Your task to perform on an android device: install app "Truecaller" Image 0: 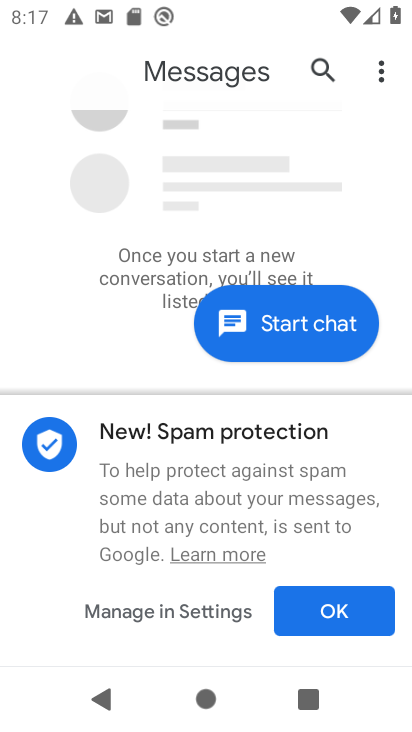
Step 0: press home button
Your task to perform on an android device: install app "Truecaller" Image 1: 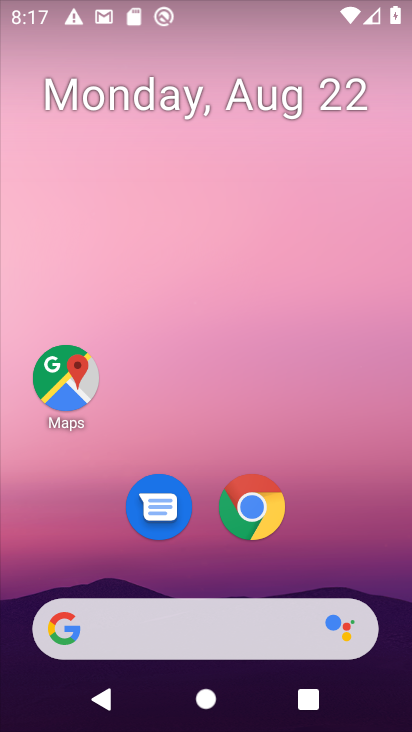
Step 1: drag from (179, 338) to (190, 186)
Your task to perform on an android device: install app "Truecaller" Image 2: 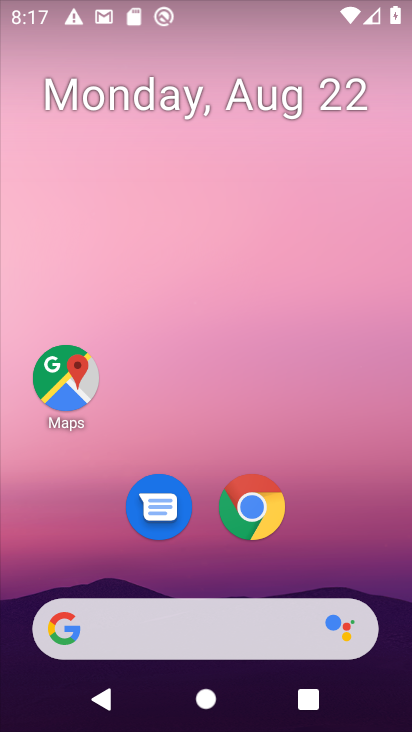
Step 2: drag from (194, 516) to (183, 9)
Your task to perform on an android device: install app "Truecaller" Image 3: 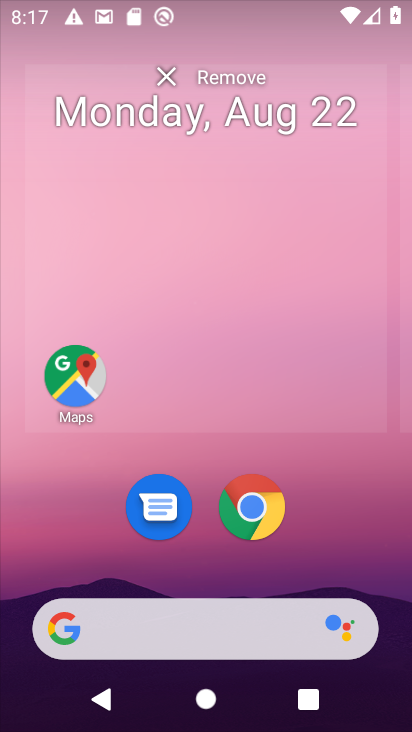
Step 3: click (311, 519)
Your task to perform on an android device: install app "Truecaller" Image 4: 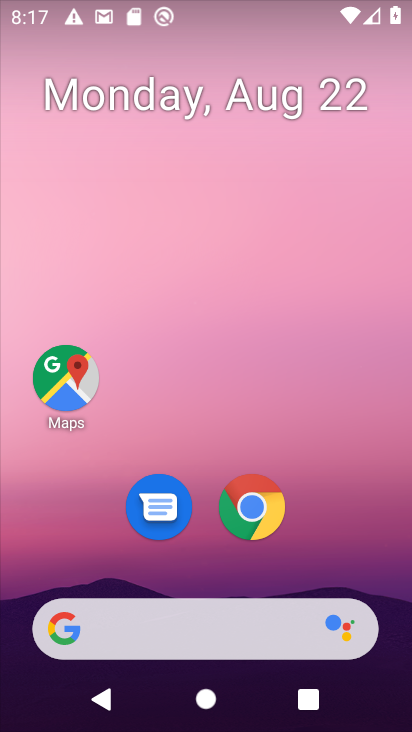
Step 4: drag from (209, 563) to (375, 23)
Your task to perform on an android device: install app "Truecaller" Image 5: 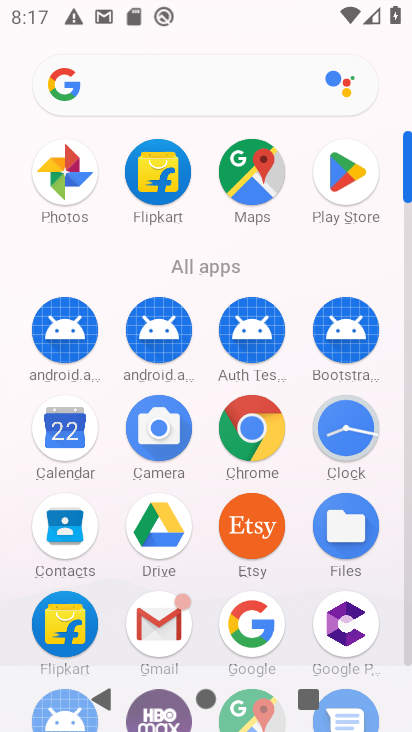
Step 5: click (338, 196)
Your task to perform on an android device: install app "Truecaller" Image 6: 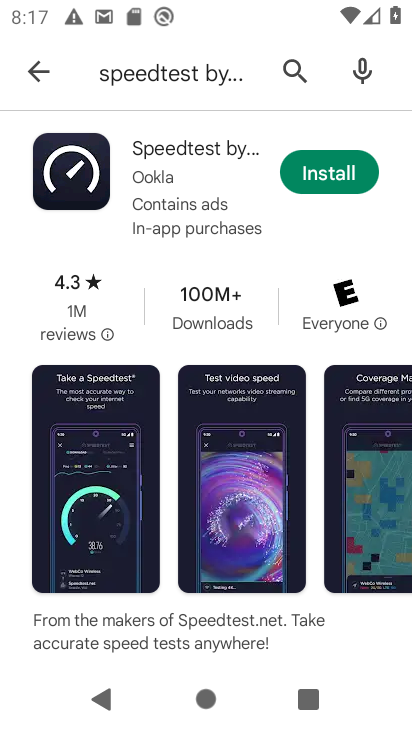
Step 6: click (202, 79)
Your task to perform on an android device: install app "Truecaller" Image 7: 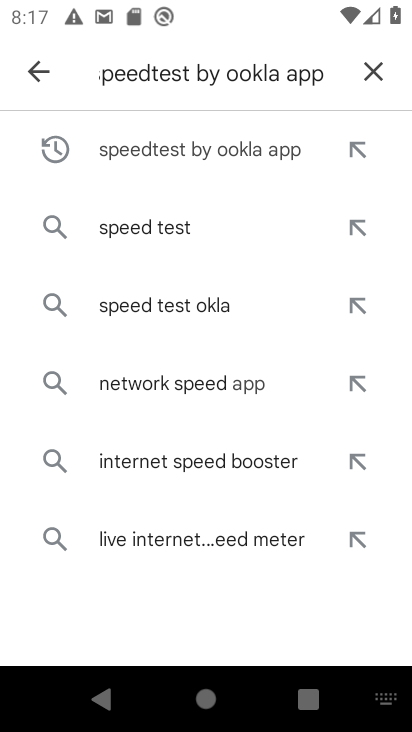
Step 7: click (370, 67)
Your task to perform on an android device: install app "Truecaller" Image 8: 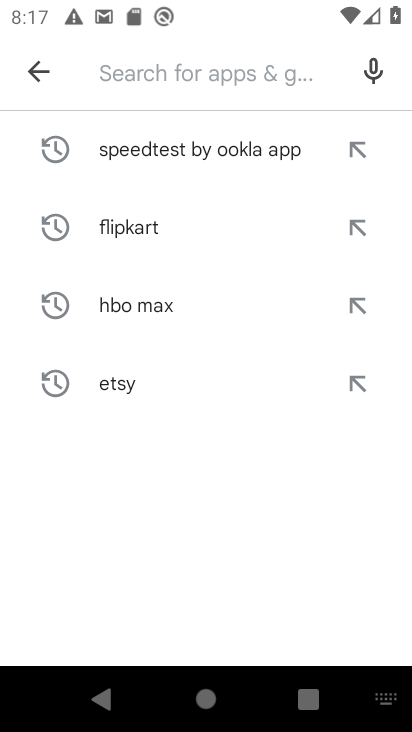
Step 8: type "truecaller"
Your task to perform on an android device: install app "Truecaller" Image 9: 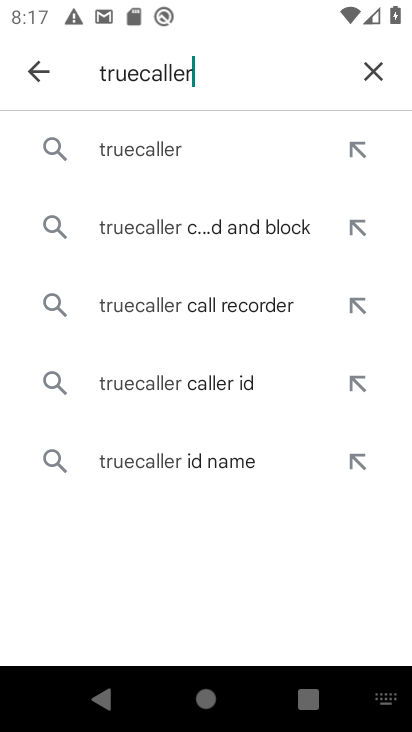
Step 9: click (141, 163)
Your task to perform on an android device: install app "Truecaller" Image 10: 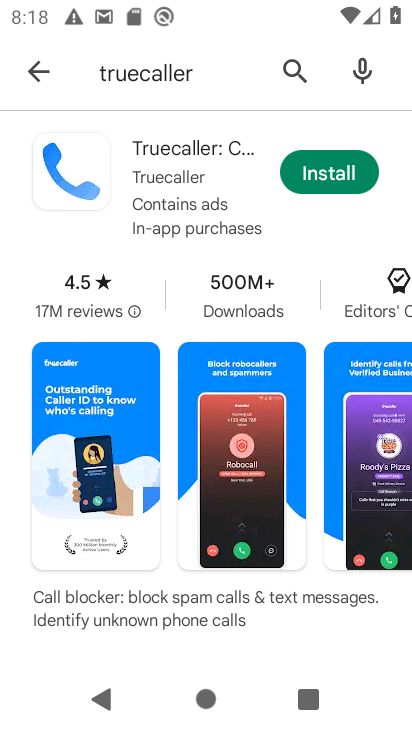
Step 10: click (331, 167)
Your task to perform on an android device: install app "Truecaller" Image 11: 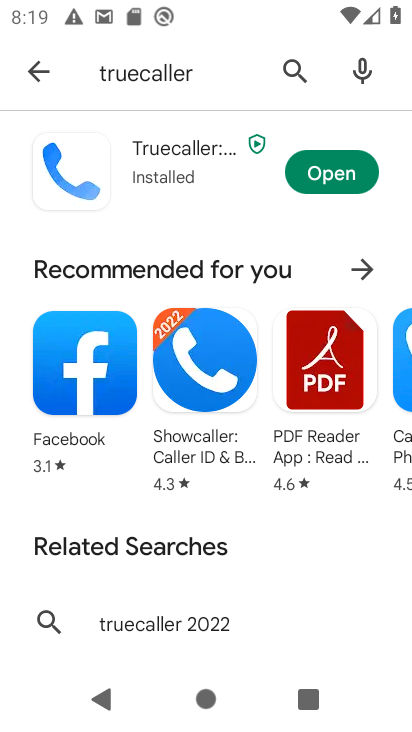
Step 11: task complete